Your task to perform on an android device: clear all cookies in the chrome app Image 0: 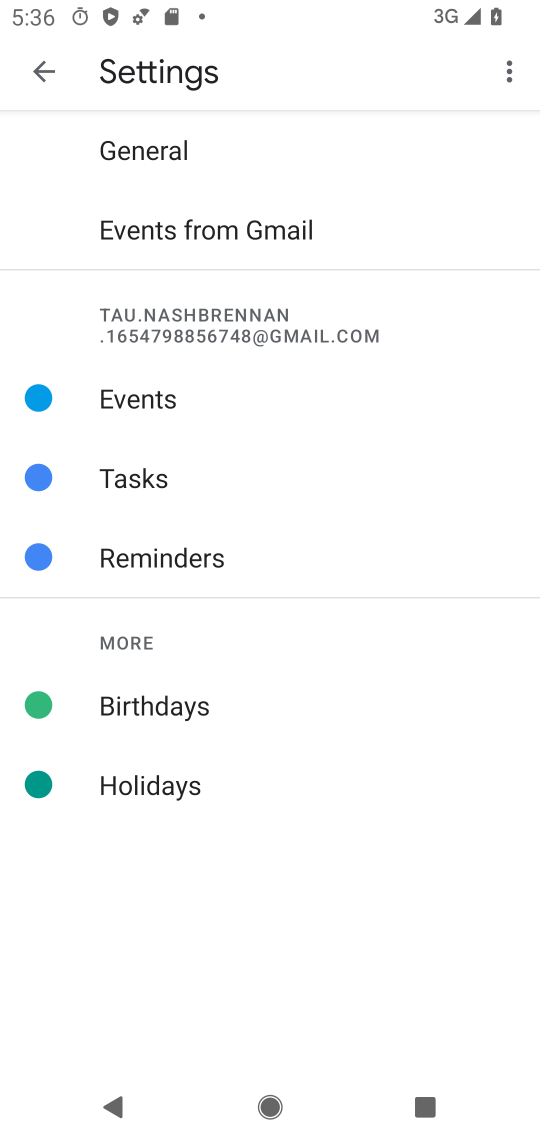
Step 0: press home button
Your task to perform on an android device: clear all cookies in the chrome app Image 1: 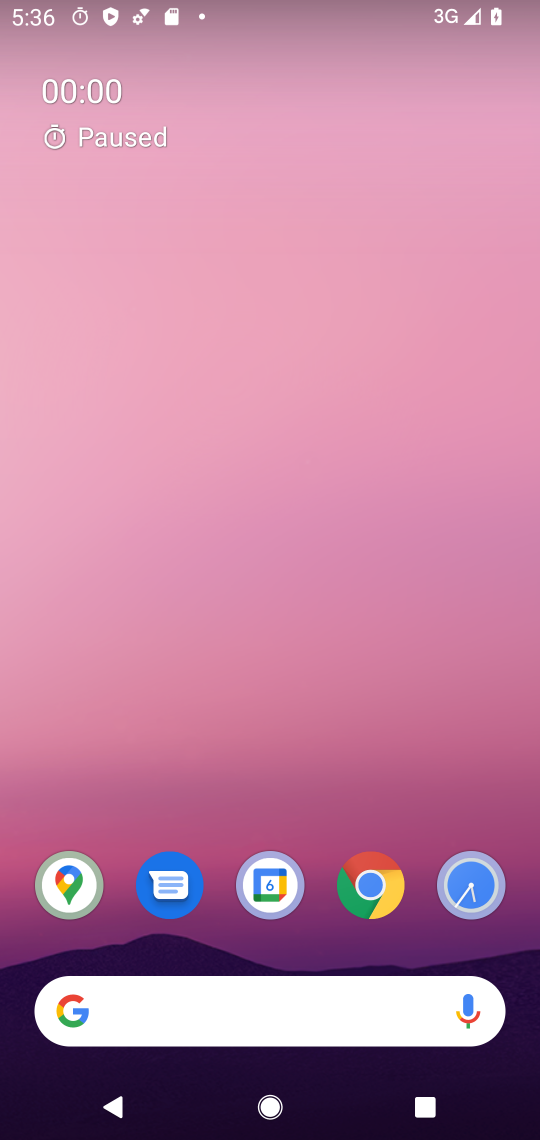
Step 1: drag from (406, 704) to (331, 62)
Your task to perform on an android device: clear all cookies in the chrome app Image 2: 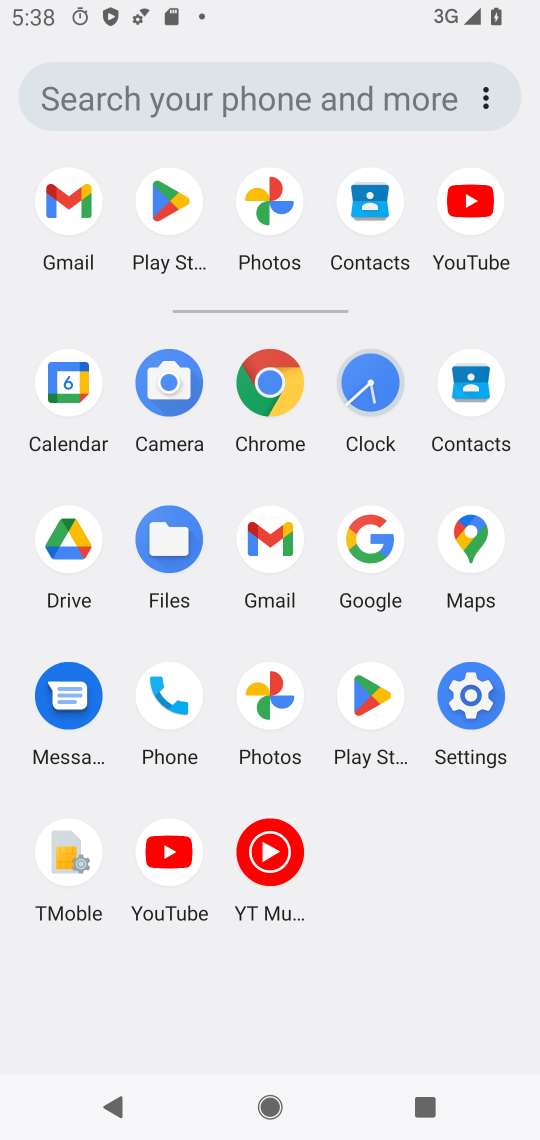
Step 2: click (253, 394)
Your task to perform on an android device: clear all cookies in the chrome app Image 3: 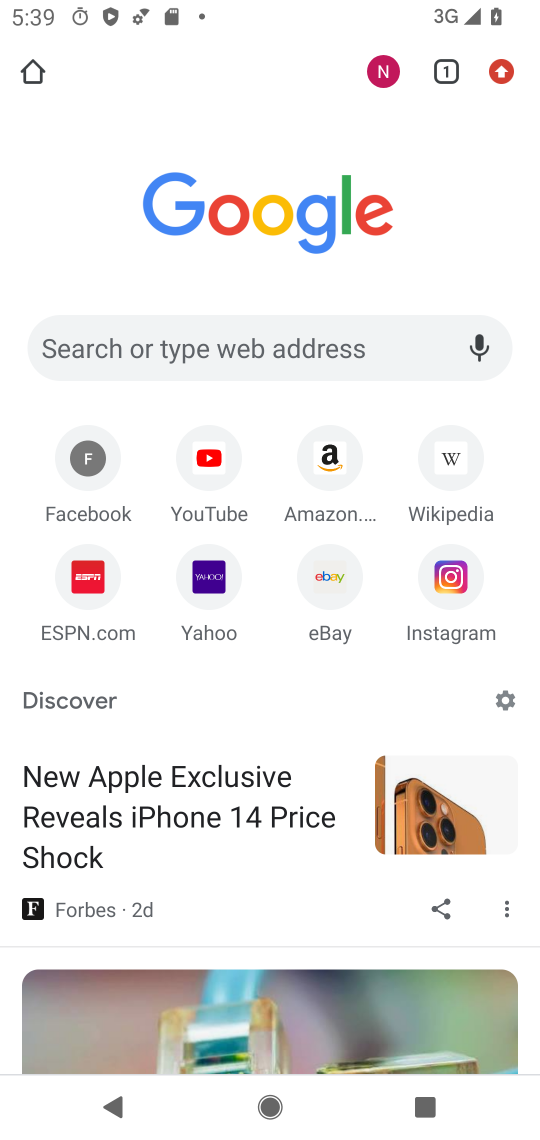
Step 3: click (501, 61)
Your task to perform on an android device: clear all cookies in the chrome app Image 4: 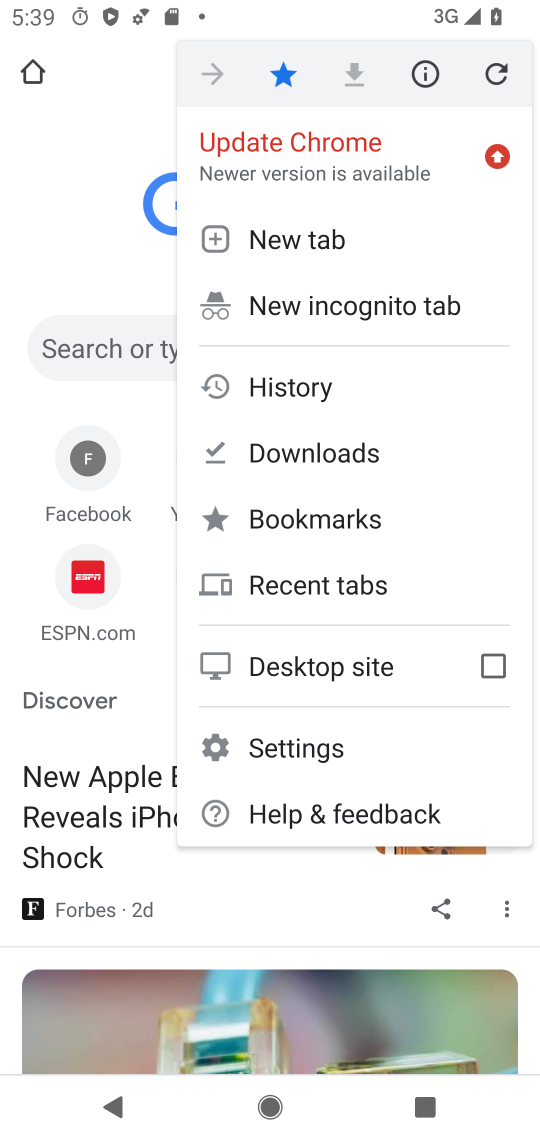
Step 4: click (367, 386)
Your task to perform on an android device: clear all cookies in the chrome app Image 5: 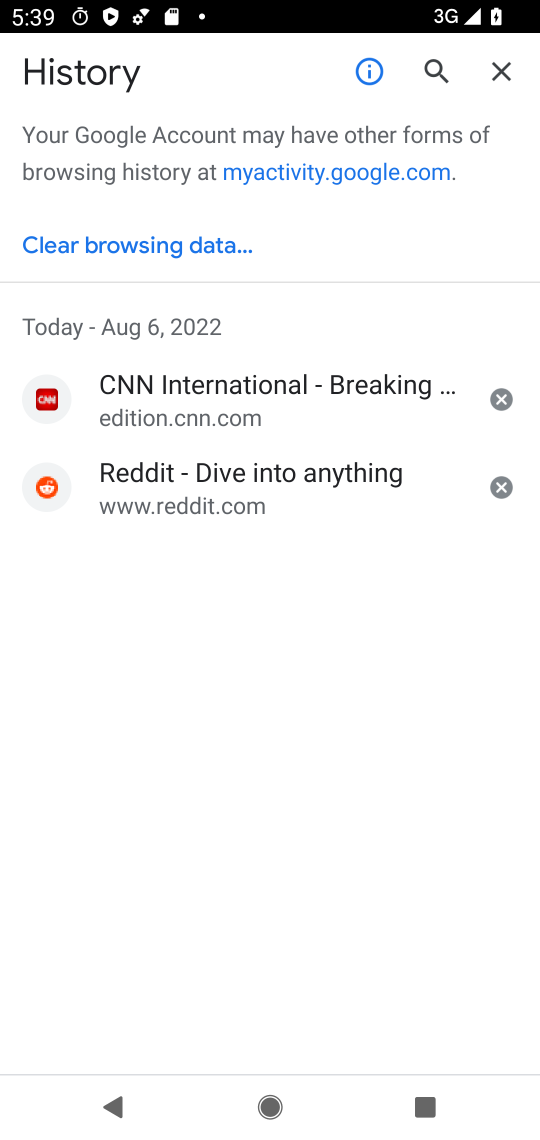
Step 5: click (113, 232)
Your task to perform on an android device: clear all cookies in the chrome app Image 6: 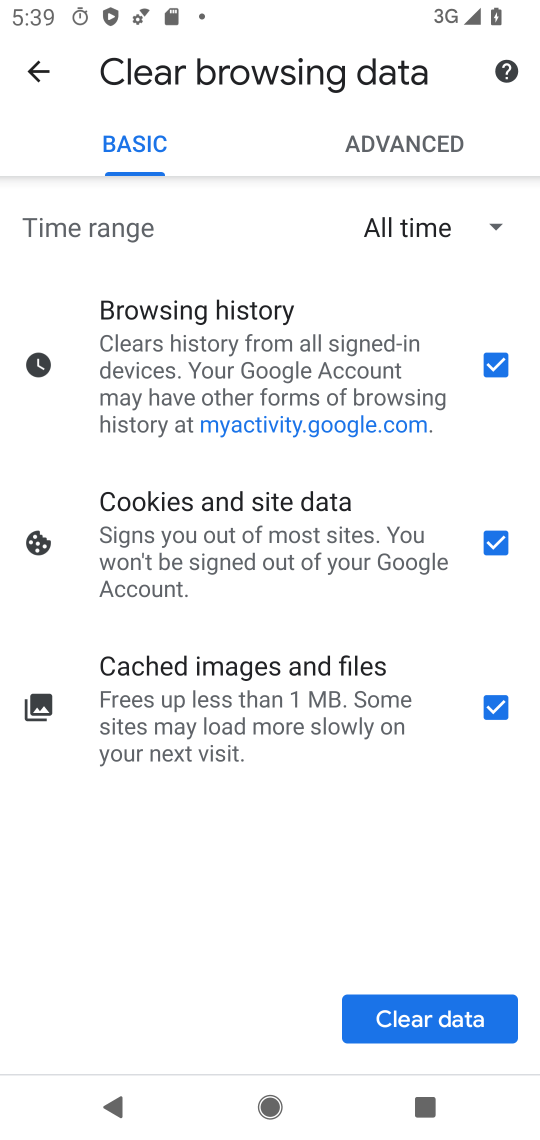
Step 6: click (430, 1025)
Your task to perform on an android device: clear all cookies in the chrome app Image 7: 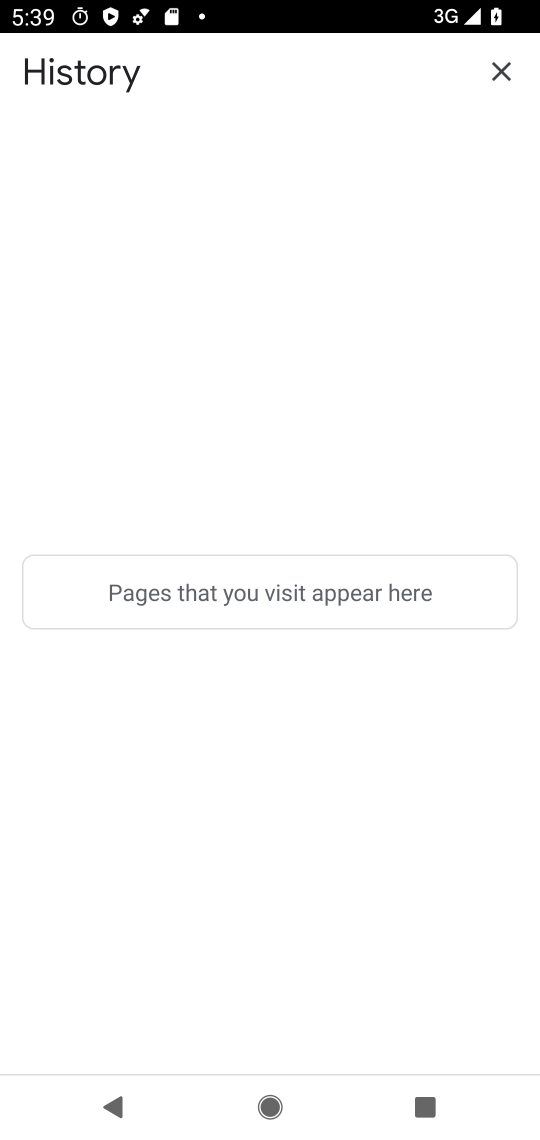
Step 7: task complete